Your task to perform on an android device: change notification settings in the gmail app Image 0: 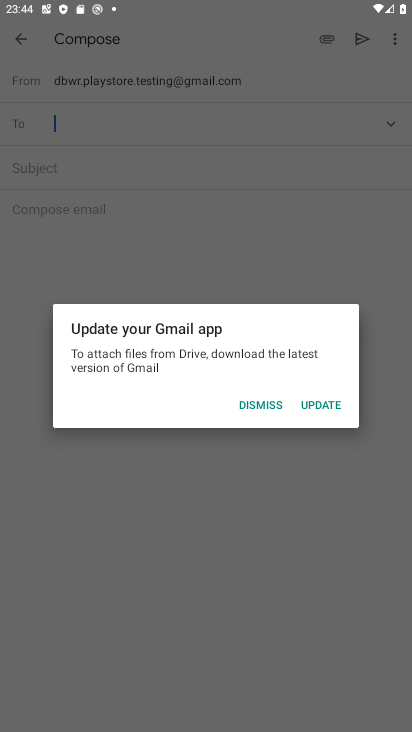
Step 0: press home button
Your task to perform on an android device: change notification settings in the gmail app Image 1: 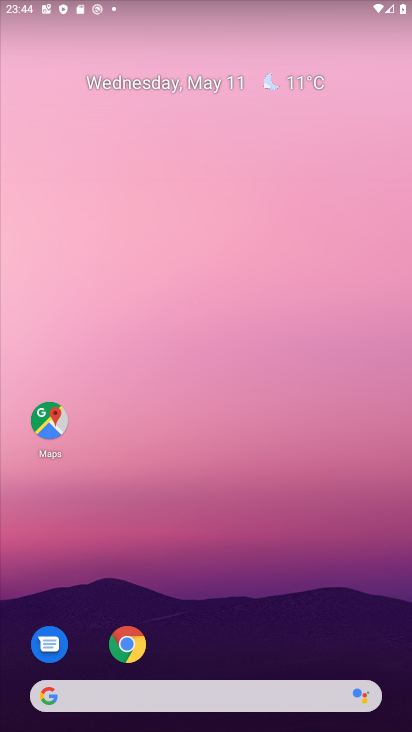
Step 1: drag from (214, 662) to (230, 55)
Your task to perform on an android device: change notification settings in the gmail app Image 2: 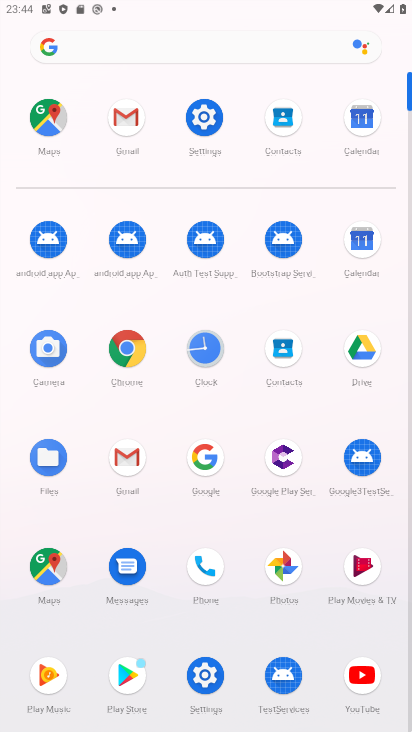
Step 2: click (130, 460)
Your task to perform on an android device: change notification settings in the gmail app Image 3: 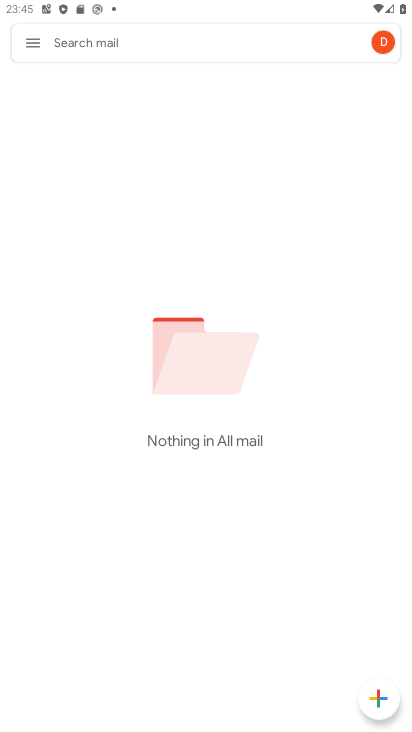
Step 3: click (35, 27)
Your task to perform on an android device: change notification settings in the gmail app Image 4: 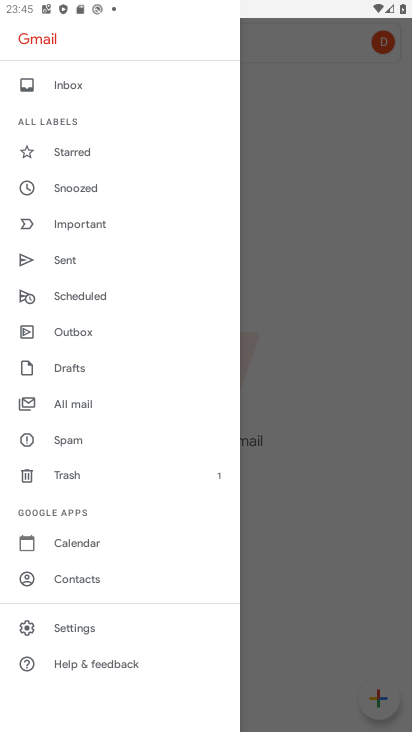
Step 4: click (82, 625)
Your task to perform on an android device: change notification settings in the gmail app Image 5: 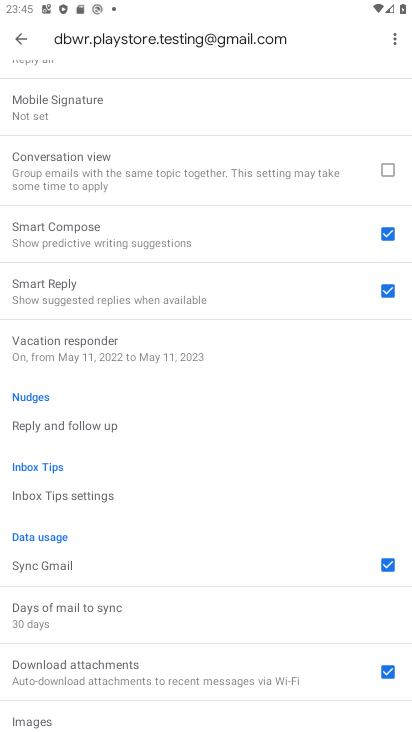
Step 5: click (20, 41)
Your task to perform on an android device: change notification settings in the gmail app Image 6: 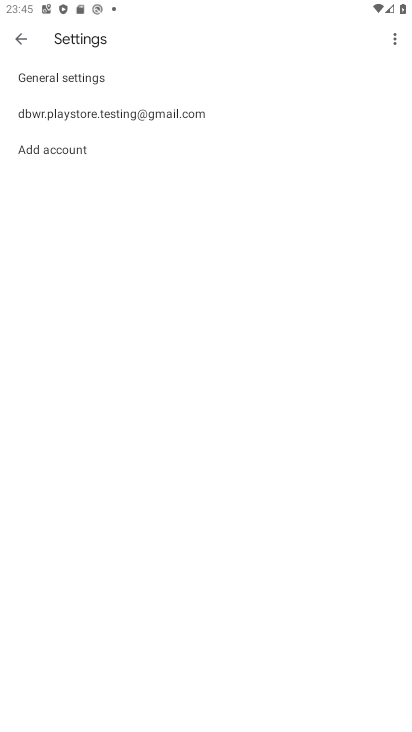
Step 6: click (73, 82)
Your task to perform on an android device: change notification settings in the gmail app Image 7: 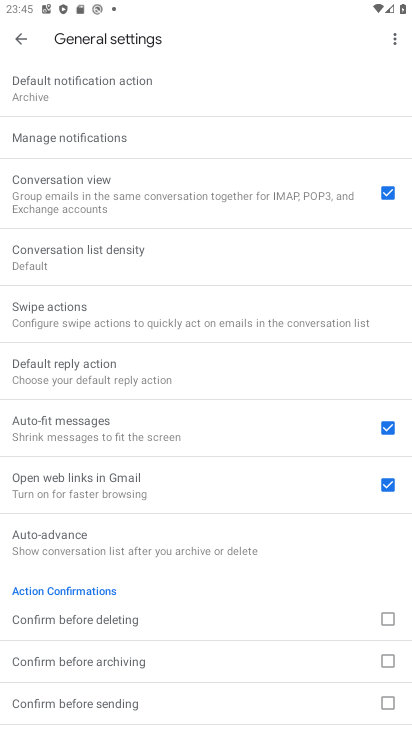
Step 7: click (127, 134)
Your task to perform on an android device: change notification settings in the gmail app Image 8: 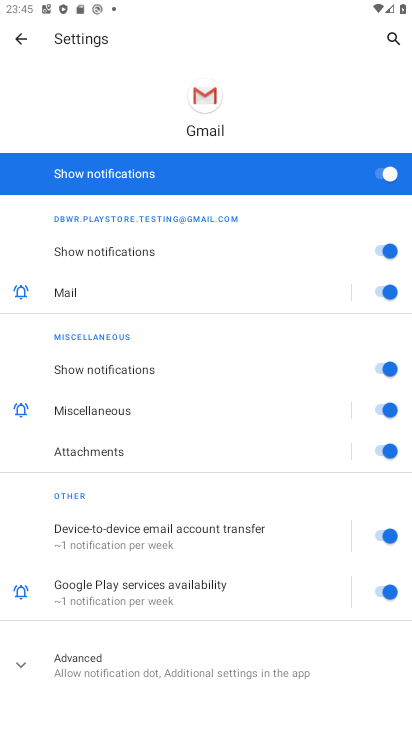
Step 8: click (378, 169)
Your task to perform on an android device: change notification settings in the gmail app Image 9: 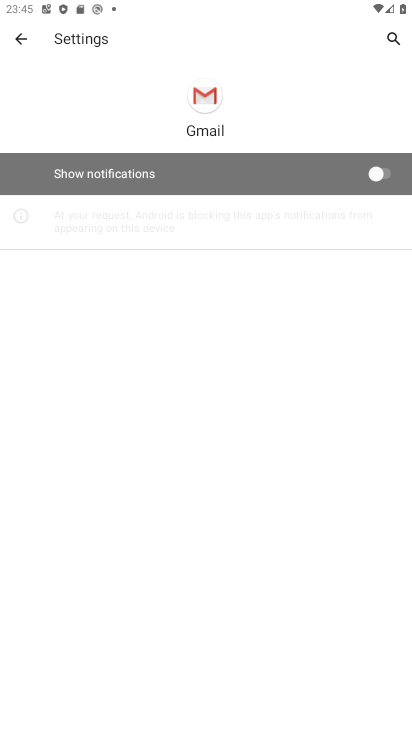
Step 9: task complete